Your task to perform on an android device: create a new album in the google photos Image 0: 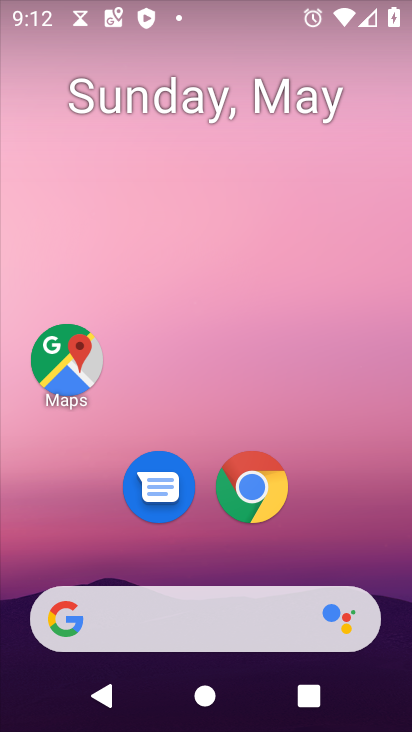
Step 0: drag from (385, 497) to (358, 59)
Your task to perform on an android device: create a new album in the google photos Image 1: 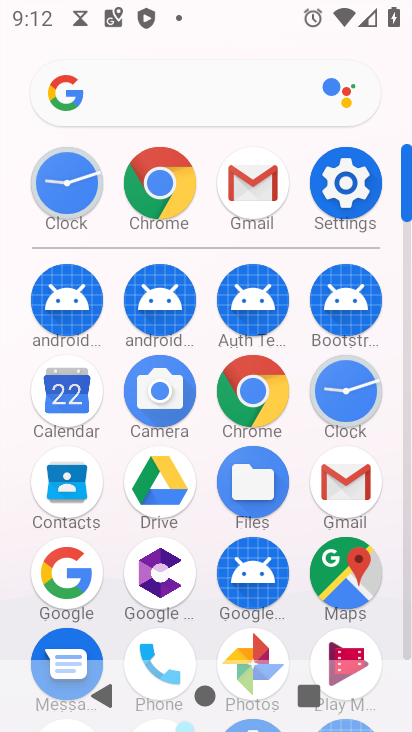
Step 1: drag from (385, 524) to (387, 257)
Your task to perform on an android device: create a new album in the google photos Image 2: 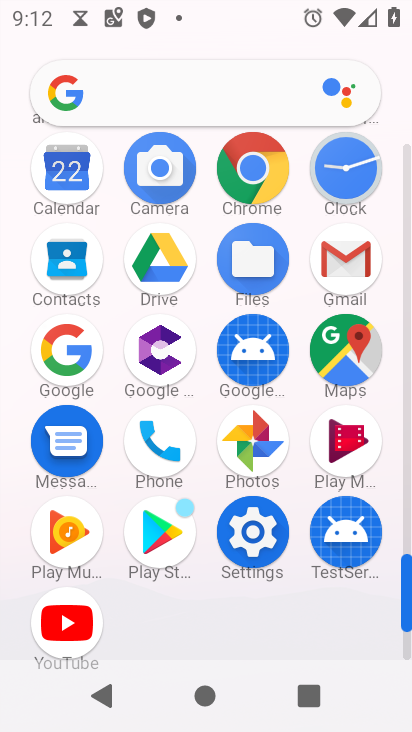
Step 2: click (266, 436)
Your task to perform on an android device: create a new album in the google photos Image 3: 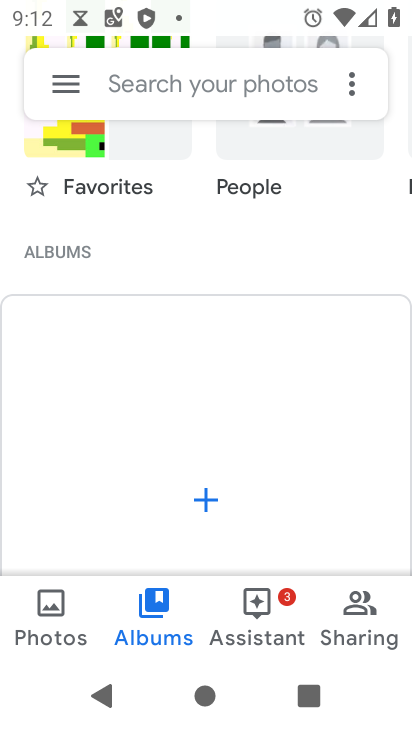
Step 3: click (214, 508)
Your task to perform on an android device: create a new album in the google photos Image 4: 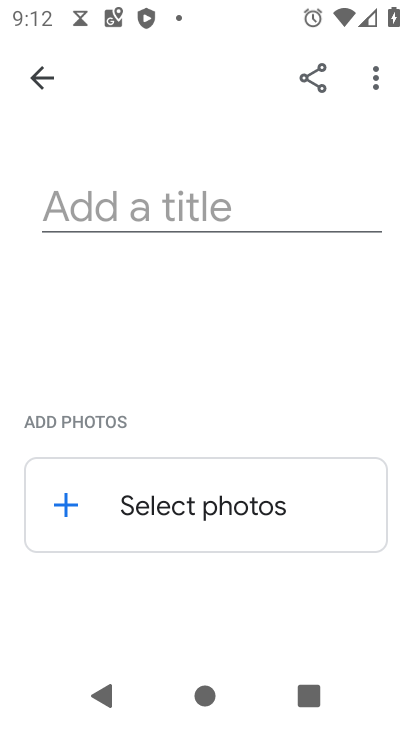
Step 4: click (201, 197)
Your task to perform on an android device: create a new album in the google photos Image 5: 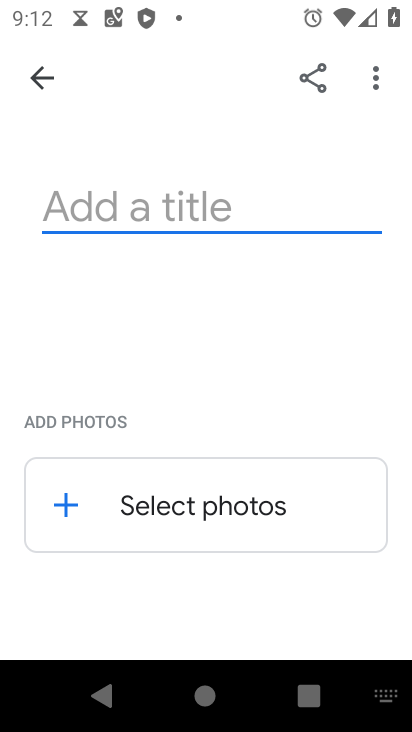
Step 5: type "tyyyyy"
Your task to perform on an android device: create a new album in the google photos Image 6: 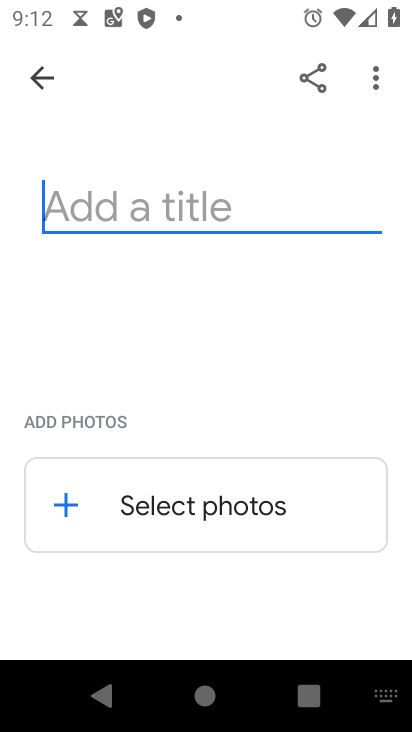
Step 6: click (282, 517)
Your task to perform on an android device: create a new album in the google photos Image 7: 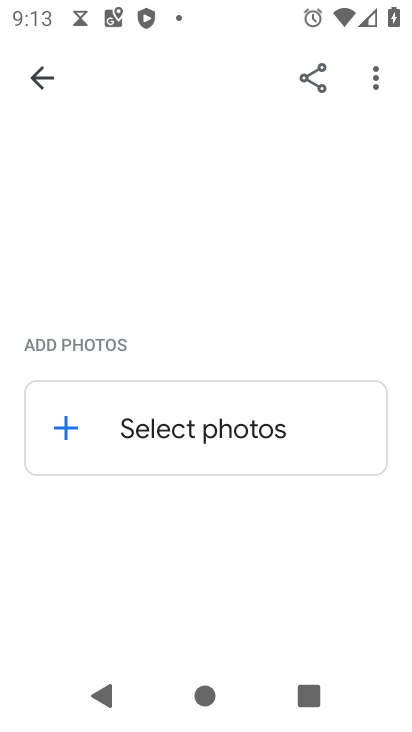
Step 7: click (286, 435)
Your task to perform on an android device: create a new album in the google photos Image 8: 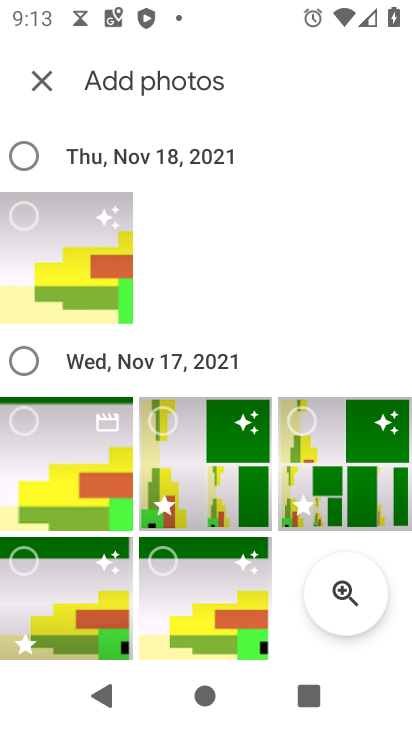
Step 8: click (24, 426)
Your task to perform on an android device: create a new album in the google photos Image 9: 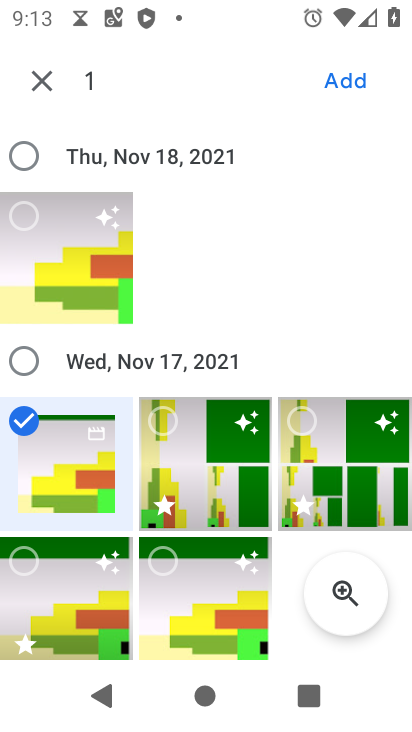
Step 9: click (174, 444)
Your task to perform on an android device: create a new album in the google photos Image 10: 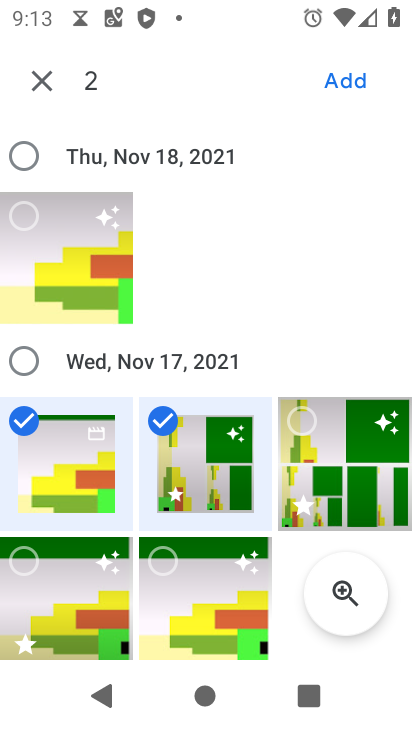
Step 10: click (315, 427)
Your task to perform on an android device: create a new album in the google photos Image 11: 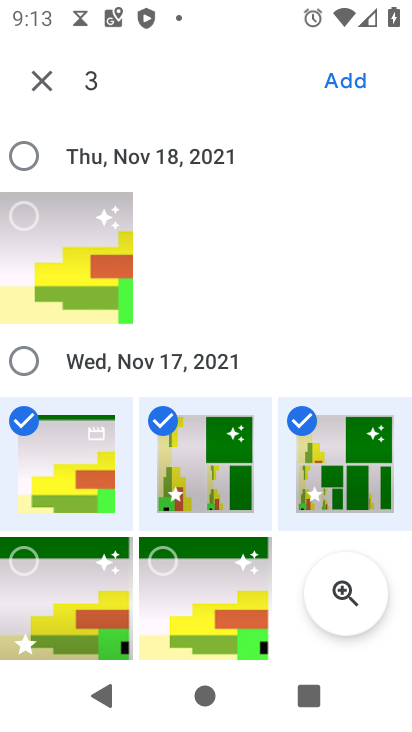
Step 11: click (343, 82)
Your task to perform on an android device: create a new album in the google photos Image 12: 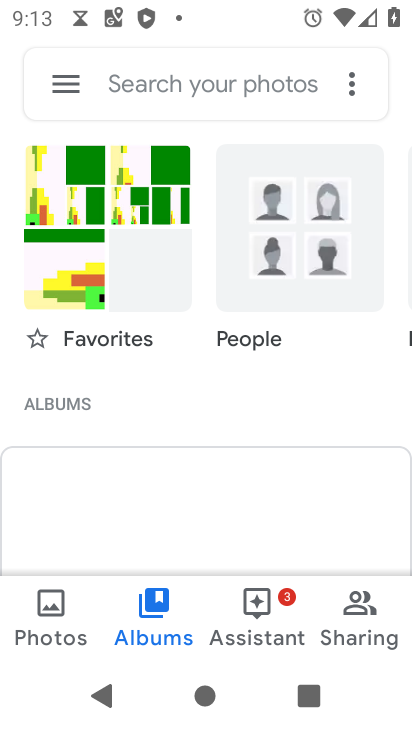
Step 12: task complete